Your task to perform on an android device: all mails in gmail Image 0: 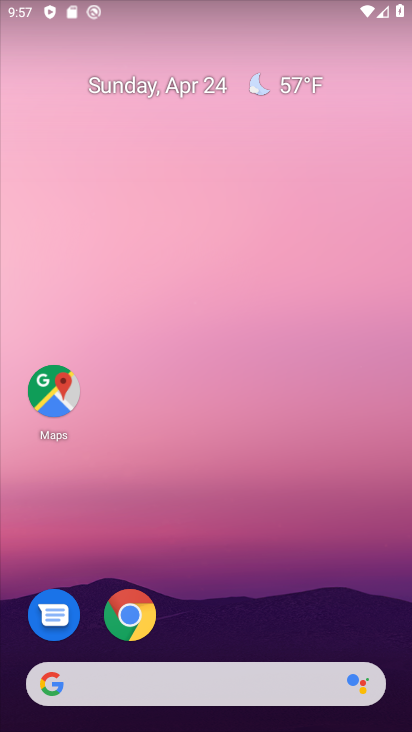
Step 0: drag from (370, 640) to (320, 64)
Your task to perform on an android device: all mails in gmail Image 1: 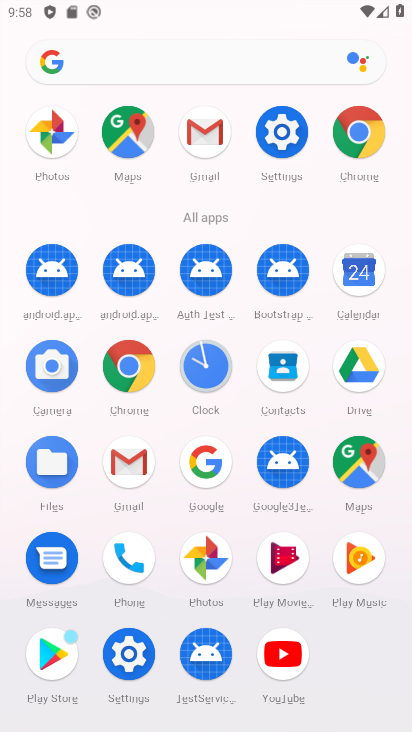
Step 1: click (122, 461)
Your task to perform on an android device: all mails in gmail Image 2: 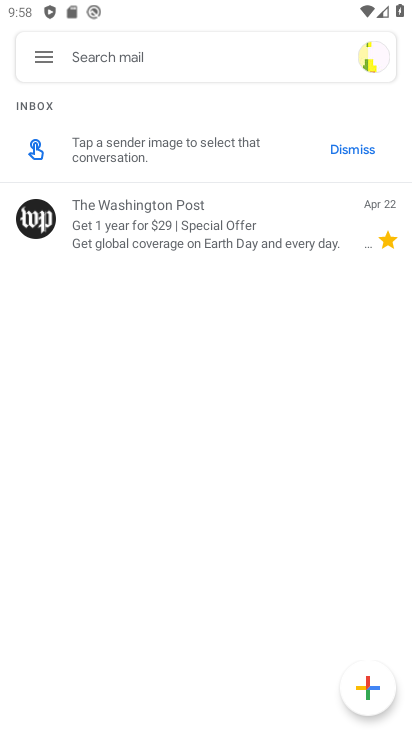
Step 2: click (43, 54)
Your task to perform on an android device: all mails in gmail Image 3: 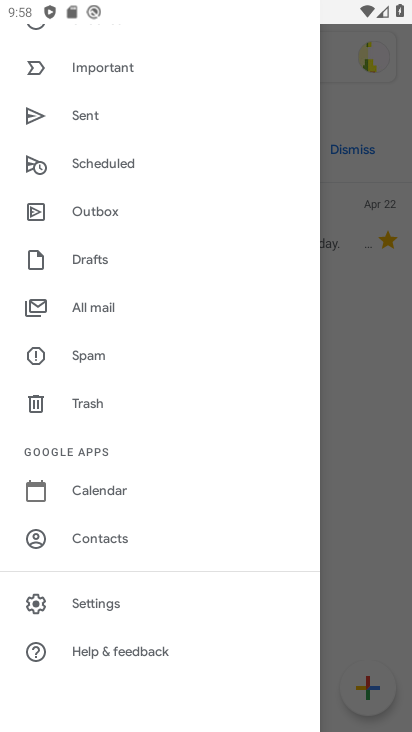
Step 3: click (85, 305)
Your task to perform on an android device: all mails in gmail Image 4: 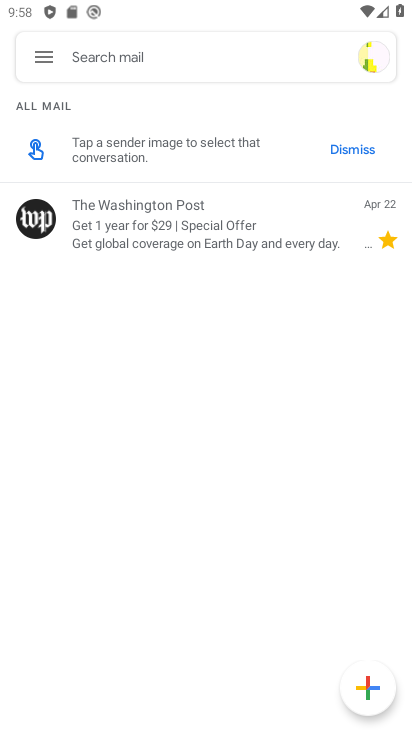
Step 4: task complete